Your task to perform on an android device: What's a good restaurant in Portland? Image 0: 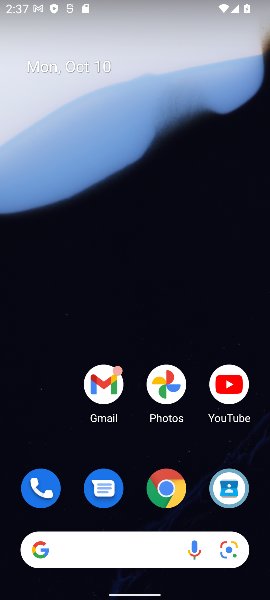
Step 0: click (141, 565)
Your task to perform on an android device: What's a good restaurant in Portland? Image 1: 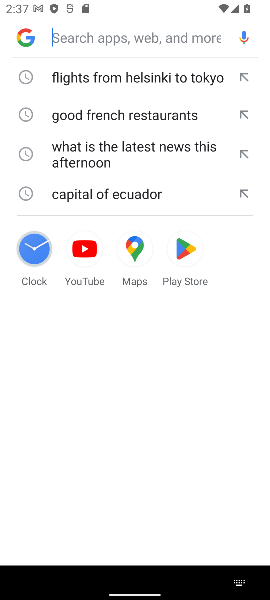
Step 1: click (73, 40)
Your task to perform on an android device: What's a good restaurant in Portland? Image 2: 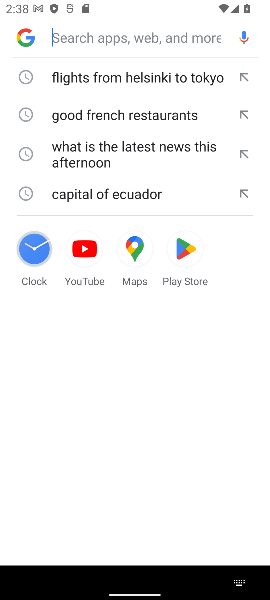
Step 2: type "What's a good restaurant in Portland?"
Your task to perform on an android device: What's a good restaurant in Portland? Image 3: 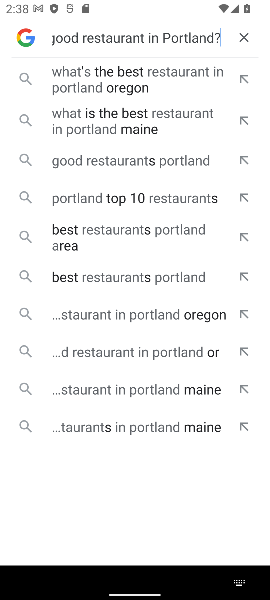
Step 3: click (145, 163)
Your task to perform on an android device: What's a good restaurant in Portland? Image 4: 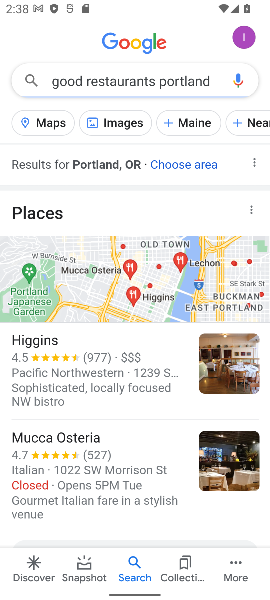
Step 4: task complete